Your task to perform on an android device: change the clock display to analog Image 0: 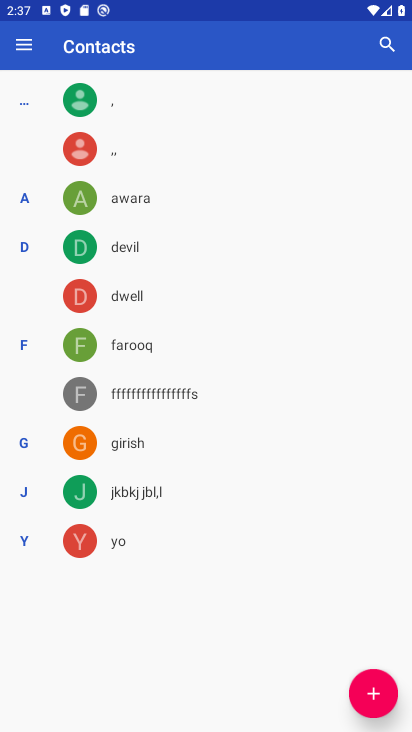
Step 0: press home button
Your task to perform on an android device: change the clock display to analog Image 1: 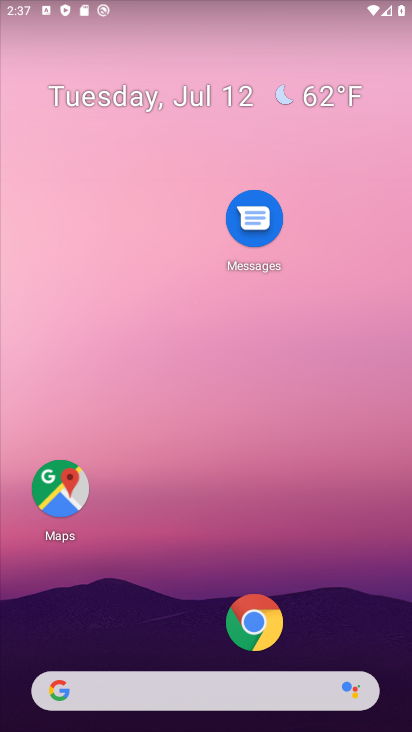
Step 1: drag from (197, 653) to (225, 139)
Your task to perform on an android device: change the clock display to analog Image 2: 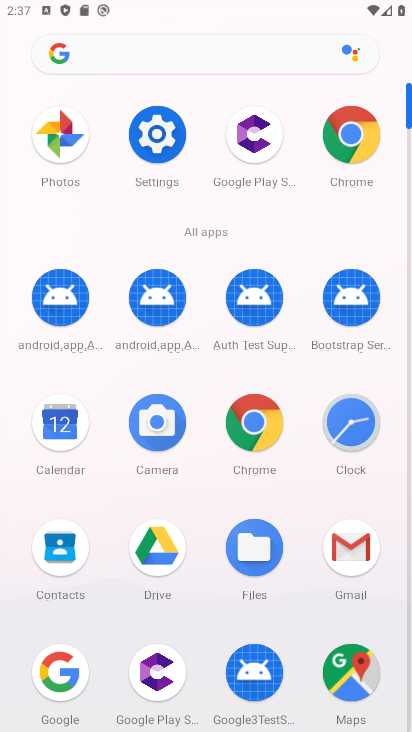
Step 2: click (348, 419)
Your task to perform on an android device: change the clock display to analog Image 3: 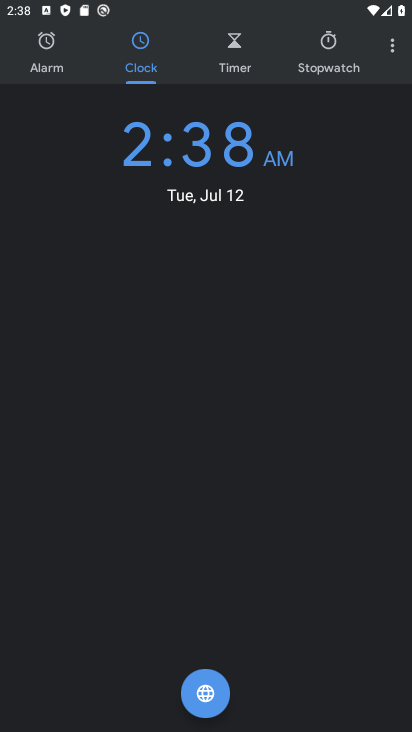
Step 3: click (393, 45)
Your task to perform on an android device: change the clock display to analog Image 4: 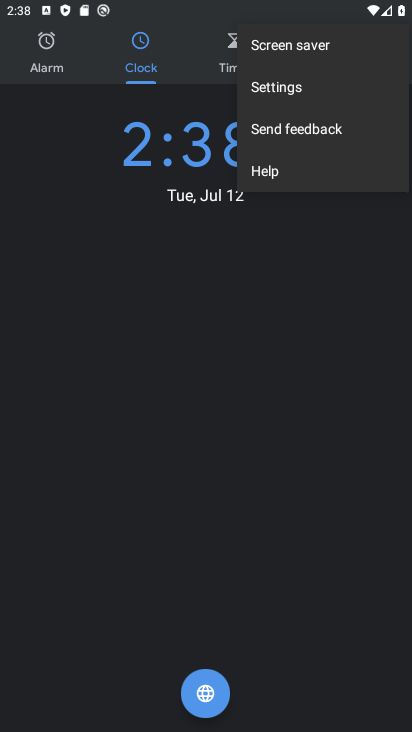
Step 4: click (299, 83)
Your task to perform on an android device: change the clock display to analog Image 5: 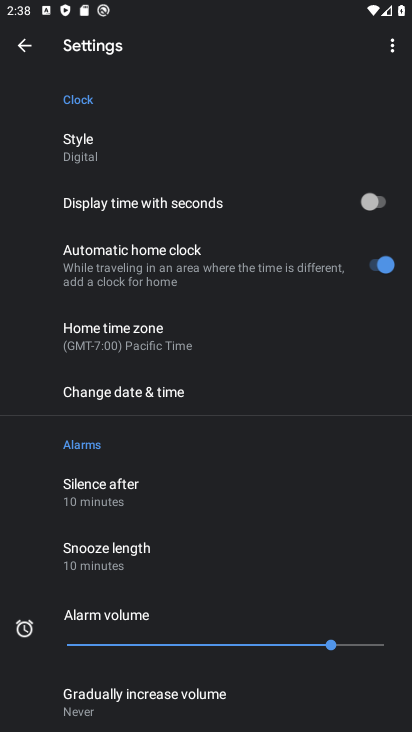
Step 5: click (110, 145)
Your task to perform on an android device: change the clock display to analog Image 6: 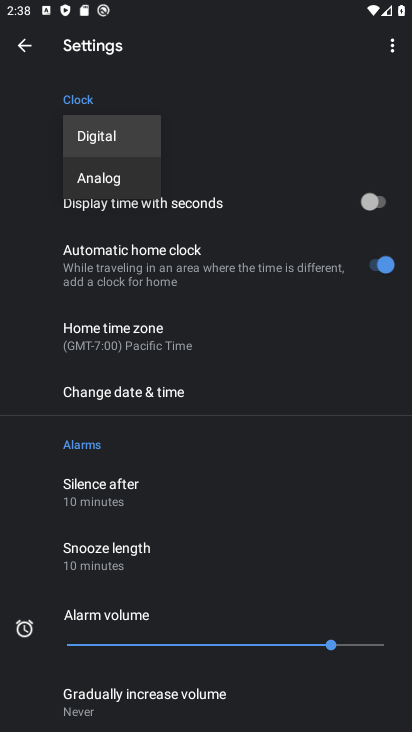
Step 6: click (126, 176)
Your task to perform on an android device: change the clock display to analog Image 7: 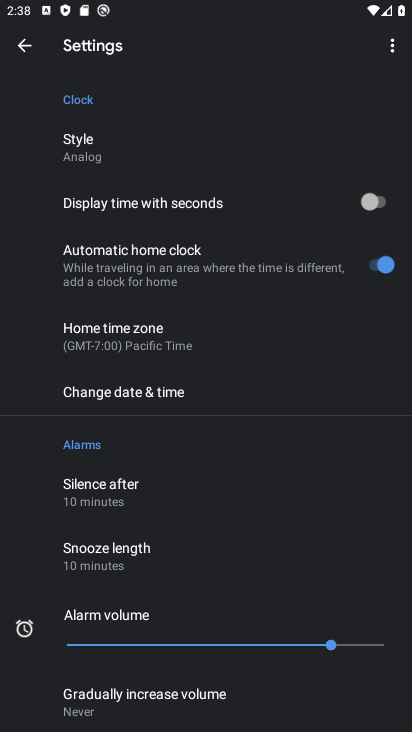
Step 7: task complete